Your task to perform on an android device: Add "amazon basics triple a" to the cart on target.com Image 0: 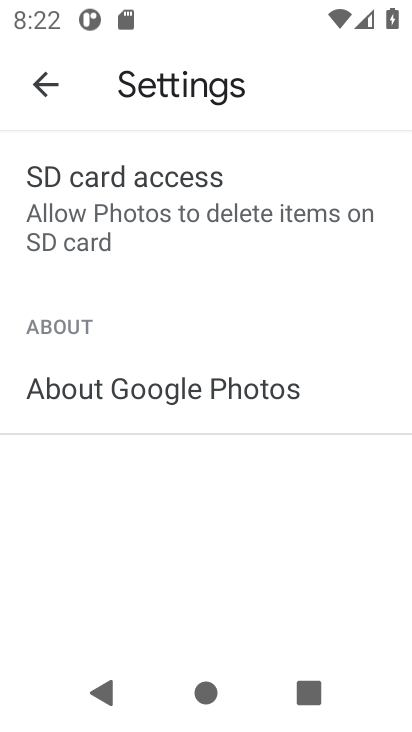
Step 0: press home button
Your task to perform on an android device: Add "amazon basics triple a" to the cart on target.com Image 1: 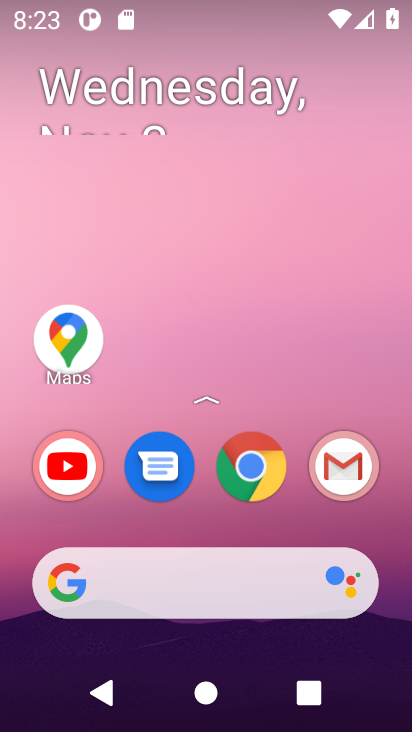
Step 1: click (199, 601)
Your task to perform on an android device: Add "amazon basics triple a" to the cart on target.com Image 2: 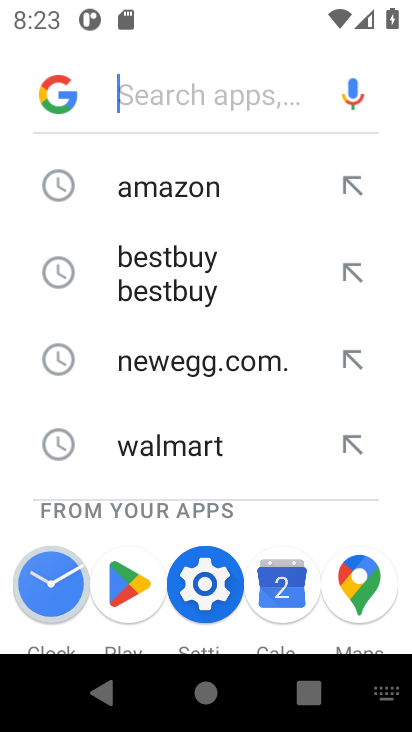
Step 2: type "target.com"
Your task to perform on an android device: Add "amazon basics triple a" to the cart on target.com Image 3: 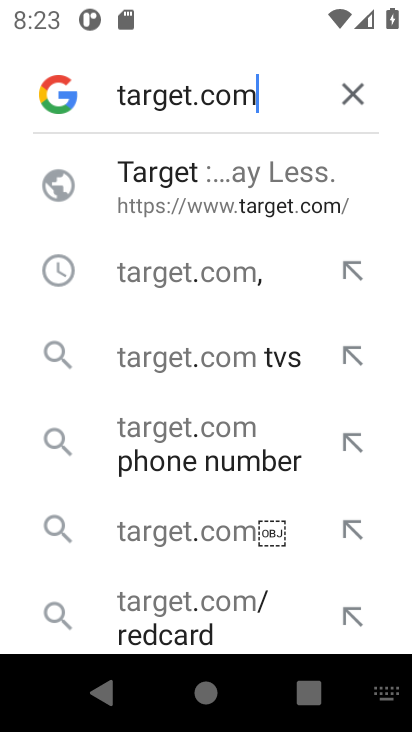
Step 3: type ""
Your task to perform on an android device: Add "amazon basics triple a" to the cart on target.com Image 4: 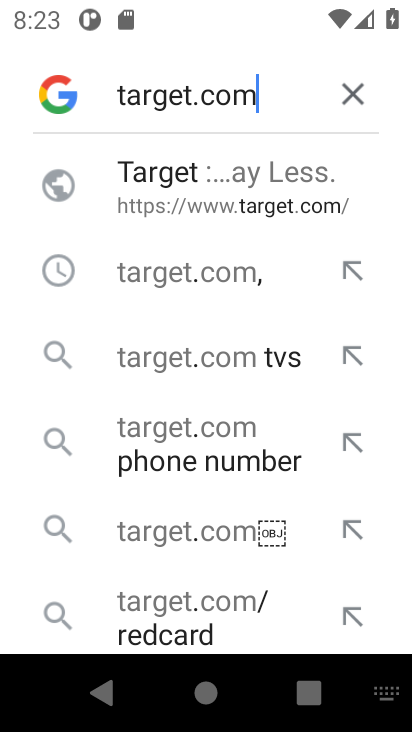
Step 4: click (207, 200)
Your task to perform on an android device: Add "amazon basics triple a" to the cart on target.com Image 5: 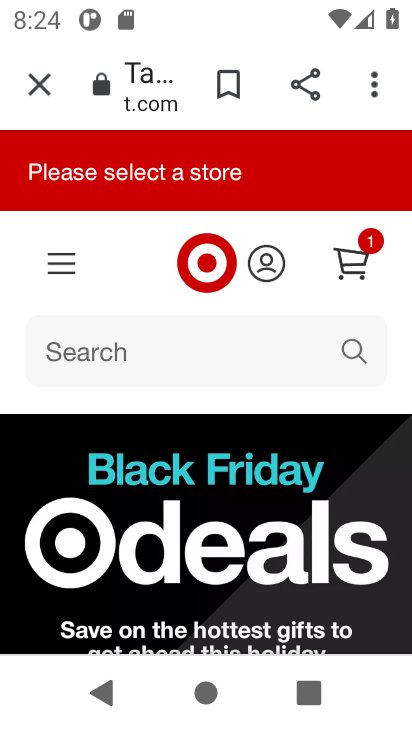
Step 5: click (259, 354)
Your task to perform on an android device: Add "amazon basics triple a" to the cart on target.com Image 6: 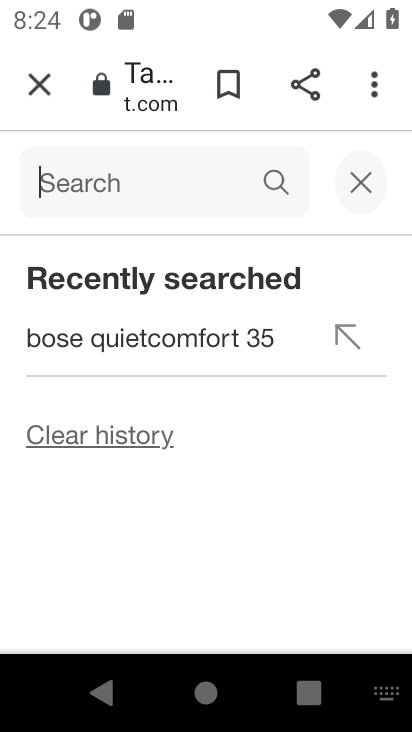
Step 6: type "amazon basics triple a"
Your task to perform on an android device: Add "amazon basics triple a" to the cart on target.com Image 7: 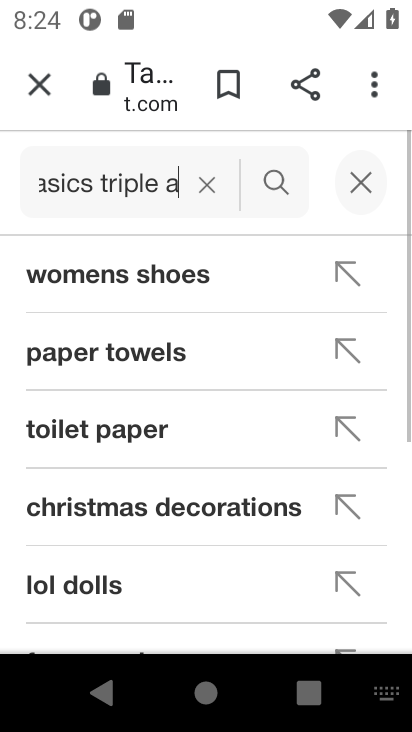
Step 7: type ""
Your task to perform on an android device: Add "amazon basics triple a" to the cart on target.com Image 8: 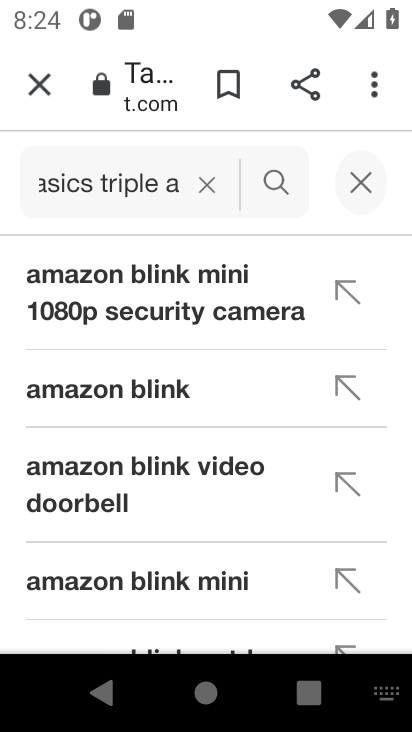
Step 8: click (280, 186)
Your task to perform on an android device: Add "amazon basics triple a" to the cart on target.com Image 9: 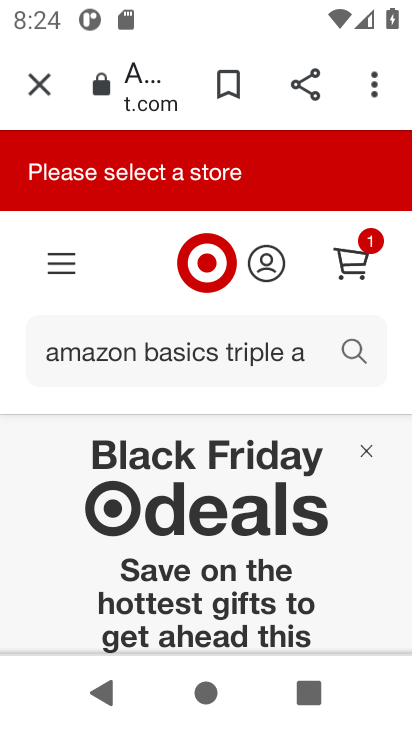
Step 9: drag from (206, 627) to (207, 304)
Your task to perform on an android device: Add "amazon basics triple a" to the cart on target.com Image 10: 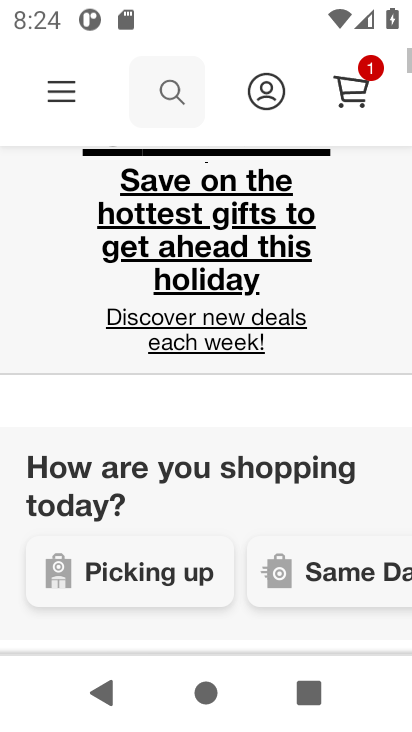
Step 10: drag from (208, 414) to (208, 287)
Your task to perform on an android device: Add "amazon basics triple a" to the cart on target.com Image 11: 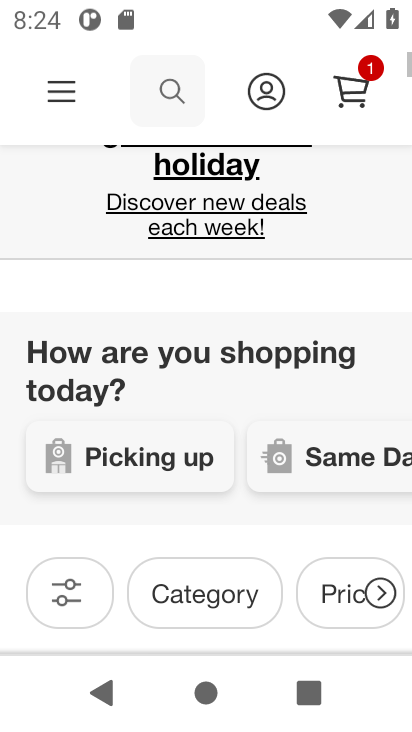
Step 11: drag from (202, 457) to (211, 255)
Your task to perform on an android device: Add "amazon basics triple a" to the cart on target.com Image 12: 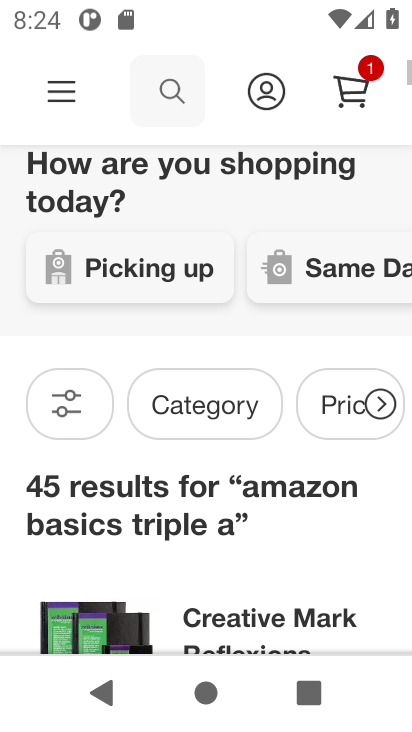
Step 12: drag from (231, 307) to (224, 220)
Your task to perform on an android device: Add "amazon basics triple a" to the cart on target.com Image 13: 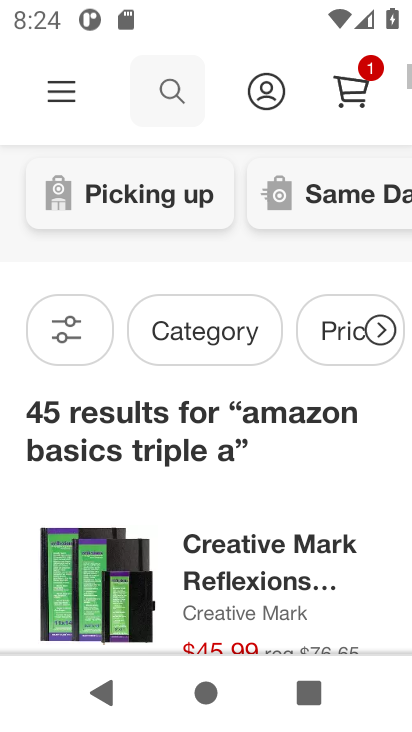
Step 13: drag from (231, 497) to (229, 311)
Your task to perform on an android device: Add "amazon basics triple a" to the cart on target.com Image 14: 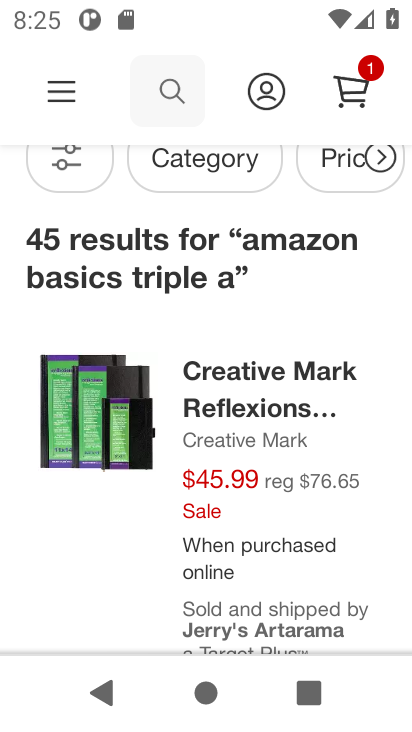
Step 14: click (271, 427)
Your task to perform on an android device: Add "amazon basics triple a" to the cart on target.com Image 15: 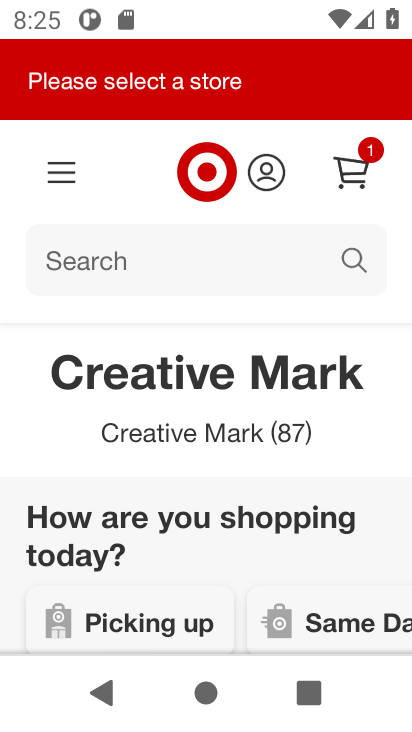
Step 15: drag from (308, 573) to (293, 330)
Your task to perform on an android device: Add "amazon basics triple a" to the cart on target.com Image 16: 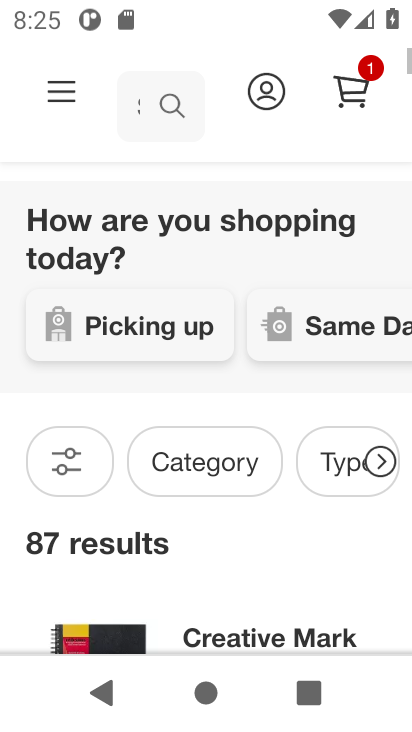
Step 16: drag from (223, 464) to (225, 410)
Your task to perform on an android device: Add "amazon basics triple a" to the cart on target.com Image 17: 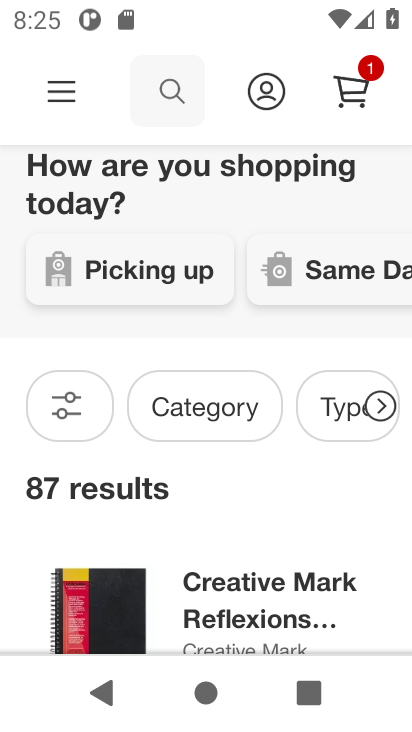
Step 17: drag from (202, 440) to (203, 257)
Your task to perform on an android device: Add "amazon basics triple a" to the cart on target.com Image 18: 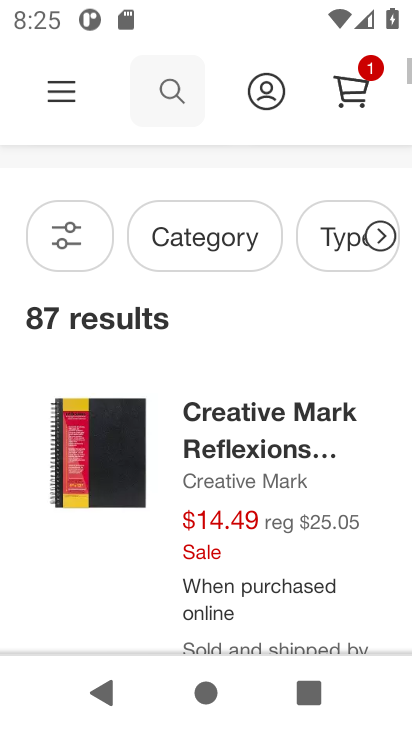
Step 18: drag from (200, 526) to (227, 369)
Your task to perform on an android device: Add "amazon basics triple a" to the cart on target.com Image 19: 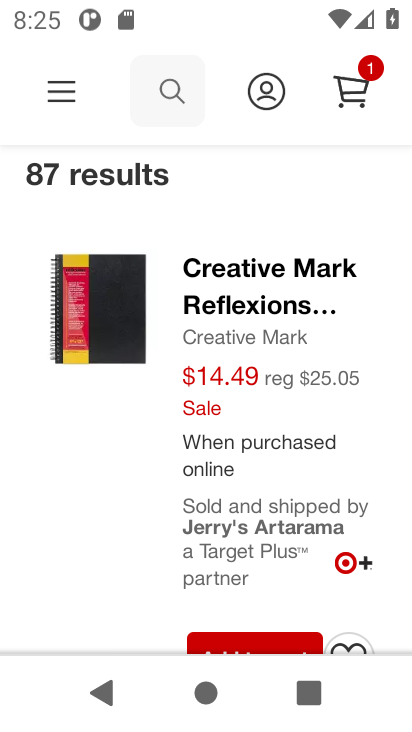
Step 19: click (176, 83)
Your task to perform on an android device: Add "amazon basics triple a" to the cart on target.com Image 20: 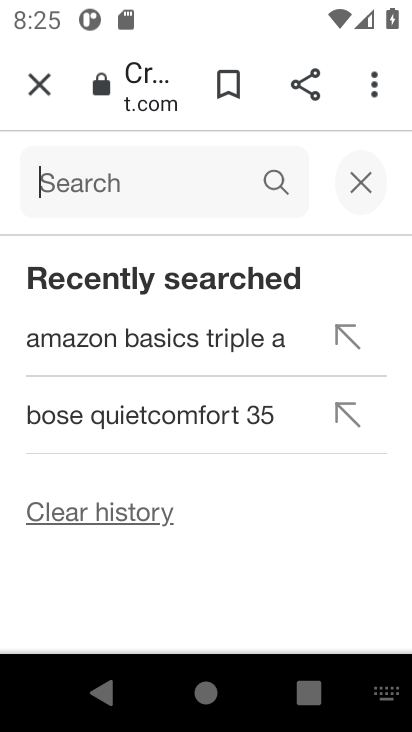
Step 20: type "amazon basics triple a"
Your task to perform on an android device: Add "amazon basics triple a" to the cart on target.com Image 21: 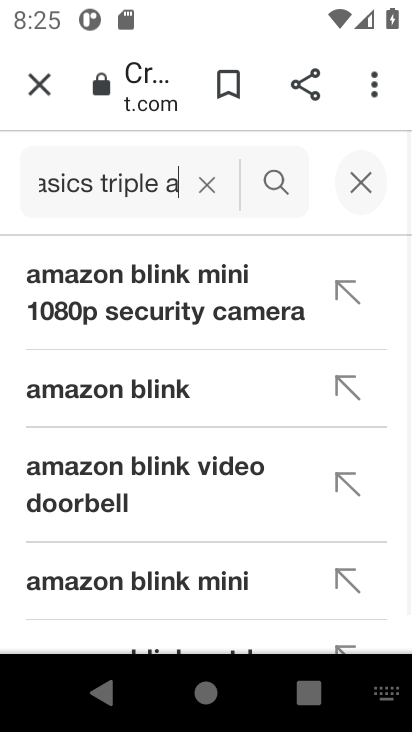
Step 21: type ""
Your task to perform on an android device: Add "amazon basics triple a" to the cart on target.com Image 22: 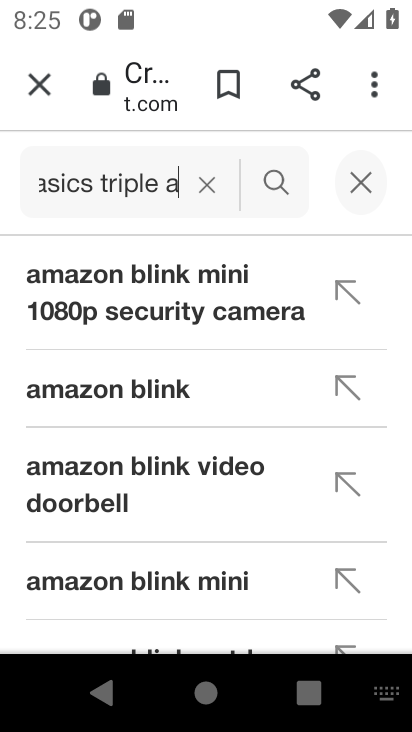
Step 22: click (285, 216)
Your task to perform on an android device: Add "amazon basics triple a" to the cart on target.com Image 23: 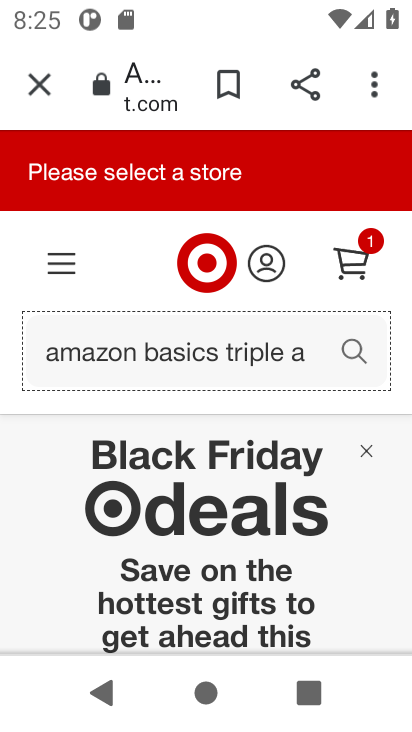
Step 23: drag from (279, 526) to (293, 221)
Your task to perform on an android device: Add "amazon basics triple a" to the cart on target.com Image 24: 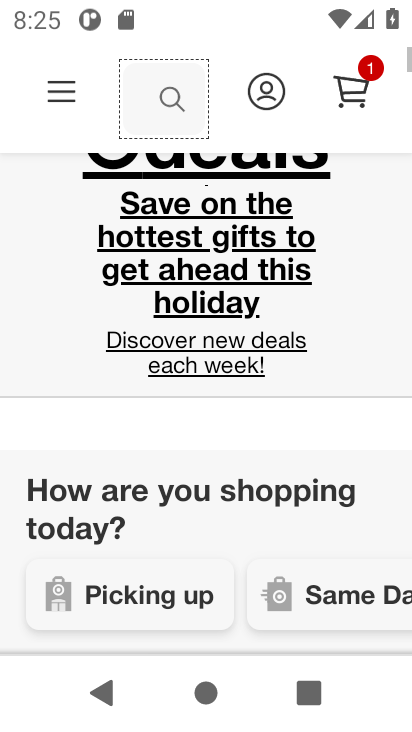
Step 24: drag from (298, 491) to (292, 254)
Your task to perform on an android device: Add "amazon basics triple a" to the cart on target.com Image 25: 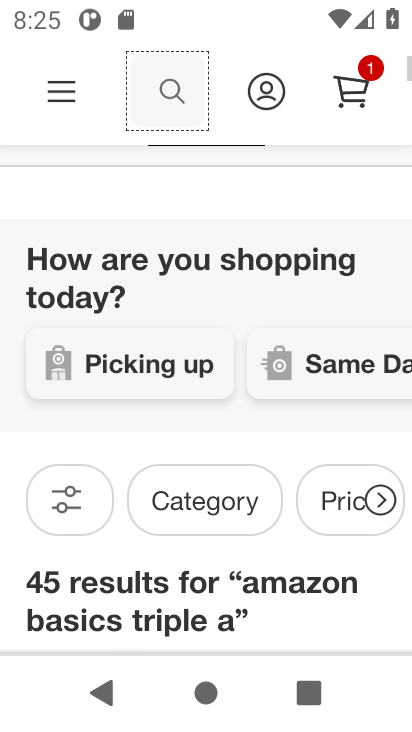
Step 25: drag from (287, 413) to (293, 283)
Your task to perform on an android device: Add "amazon basics triple a" to the cart on target.com Image 26: 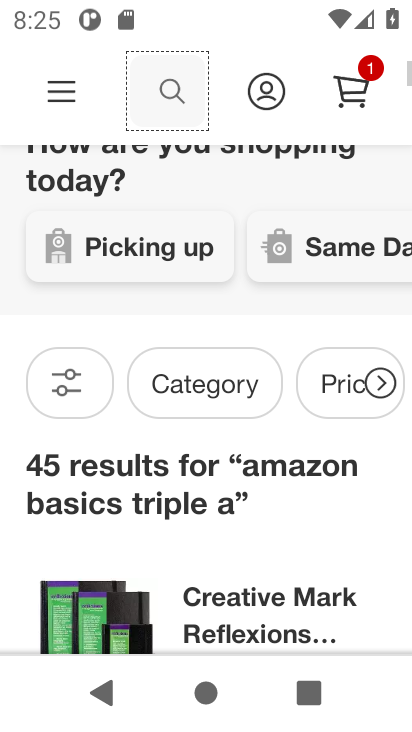
Step 26: drag from (290, 544) to (300, 300)
Your task to perform on an android device: Add "amazon basics triple a" to the cart on target.com Image 27: 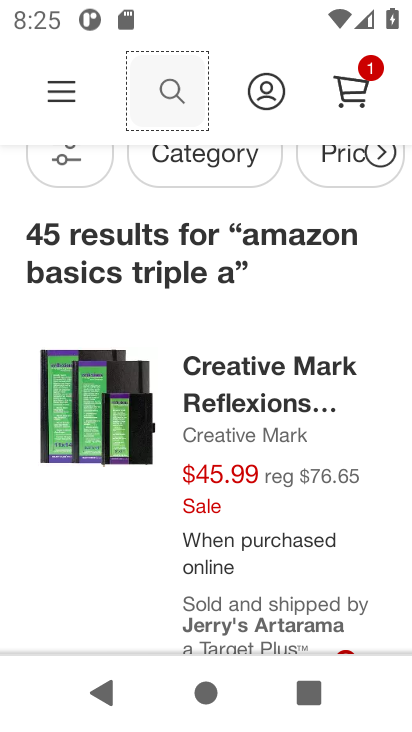
Step 27: click (219, 377)
Your task to perform on an android device: Add "amazon basics triple a" to the cart on target.com Image 28: 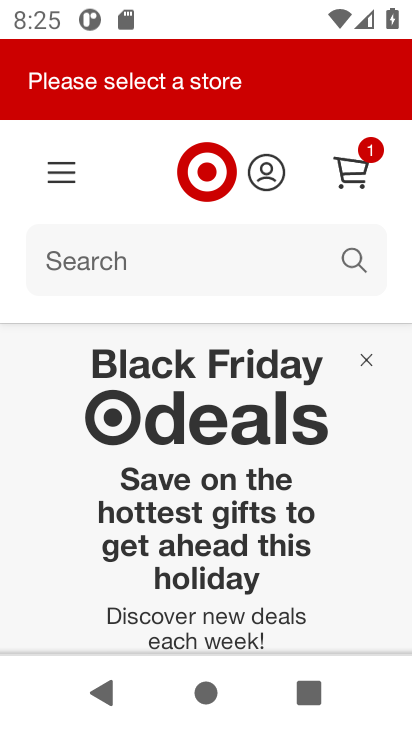
Step 28: click (360, 160)
Your task to perform on an android device: Add "amazon basics triple a" to the cart on target.com Image 29: 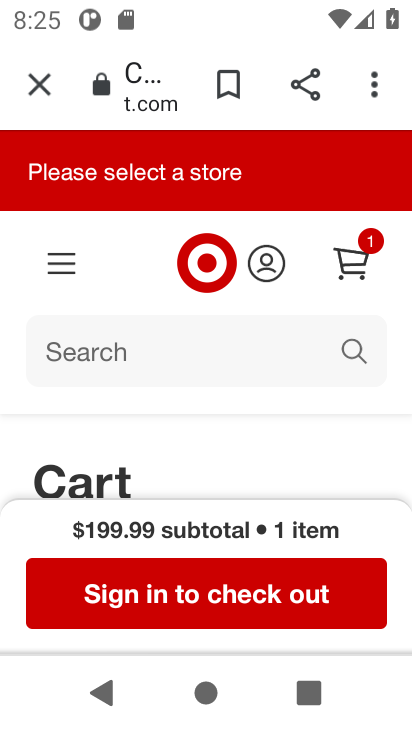
Step 29: click (270, 604)
Your task to perform on an android device: Add "amazon basics triple a" to the cart on target.com Image 30: 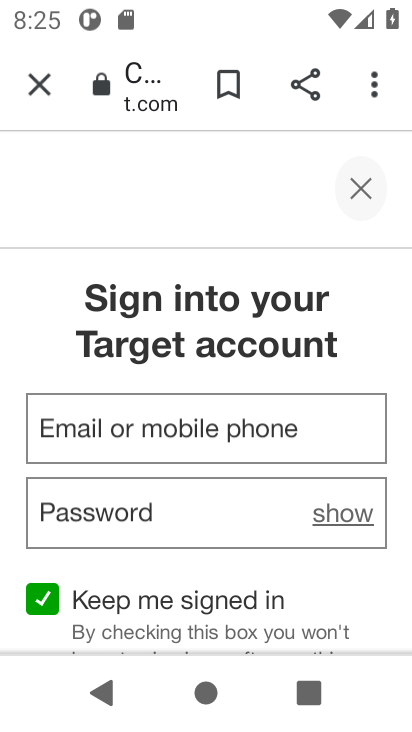
Step 30: task complete